Your task to perform on an android device: Open eBay Image 0: 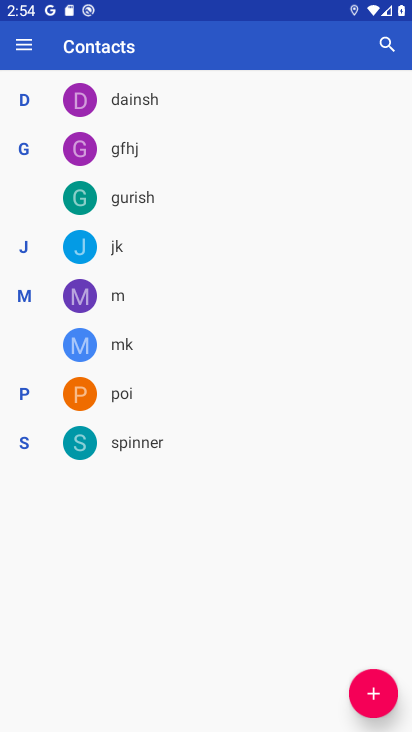
Step 0: drag from (214, 726) to (146, 238)
Your task to perform on an android device: Open eBay Image 1: 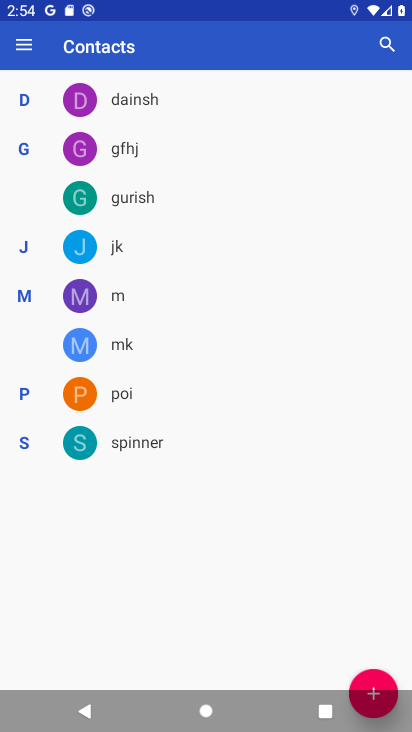
Step 1: press back button
Your task to perform on an android device: Open eBay Image 2: 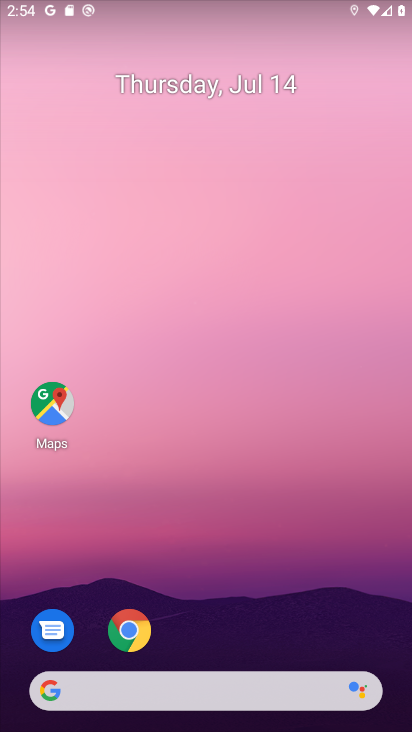
Step 2: drag from (267, 614) to (240, 174)
Your task to perform on an android device: Open eBay Image 3: 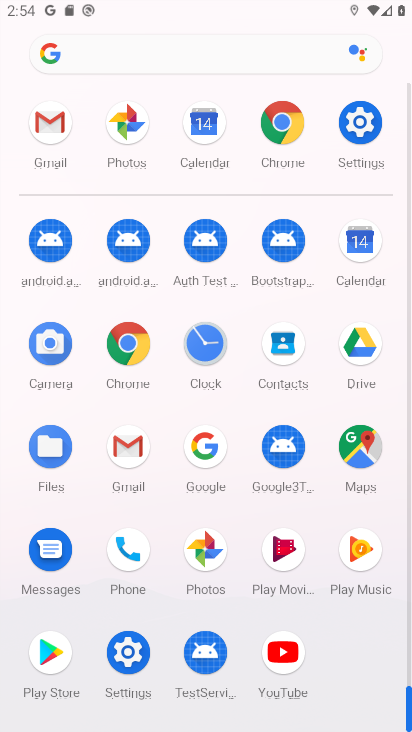
Step 3: click (292, 133)
Your task to perform on an android device: Open eBay Image 4: 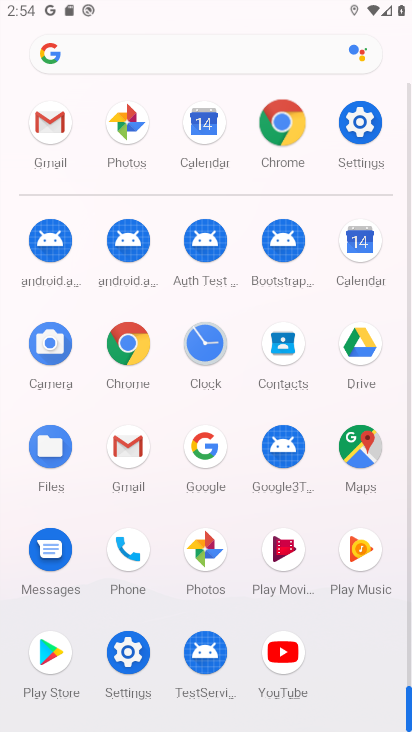
Step 4: click (289, 131)
Your task to perform on an android device: Open eBay Image 5: 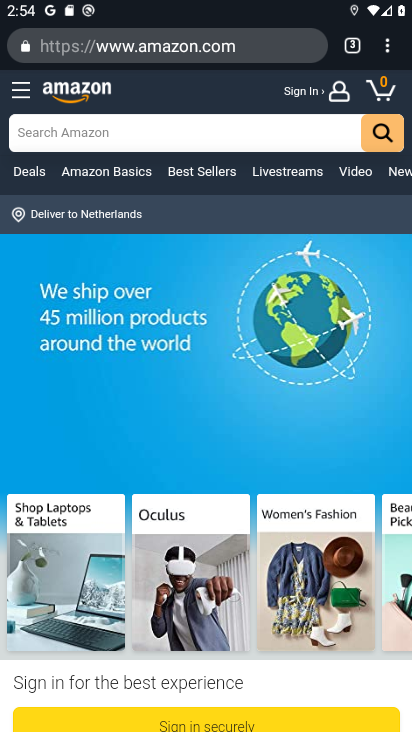
Step 5: drag from (388, 38) to (198, 88)
Your task to perform on an android device: Open eBay Image 6: 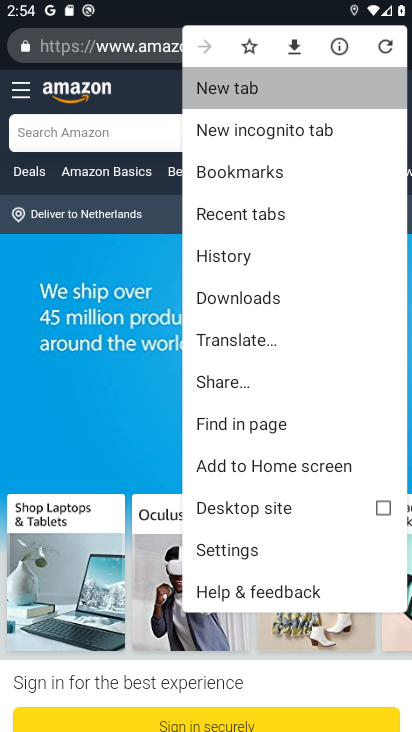
Step 6: click (197, 88)
Your task to perform on an android device: Open eBay Image 7: 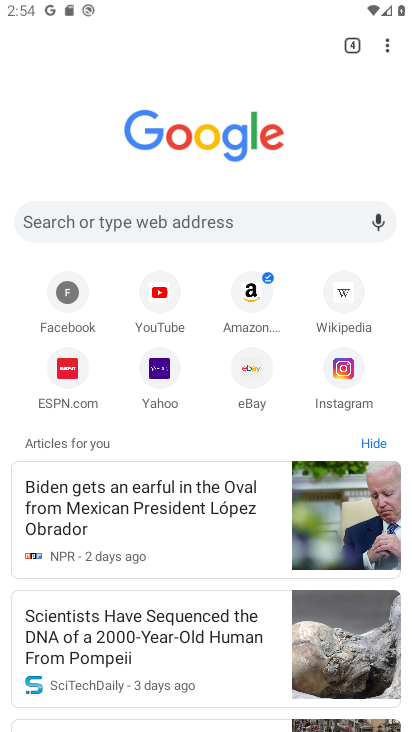
Step 7: click (249, 362)
Your task to perform on an android device: Open eBay Image 8: 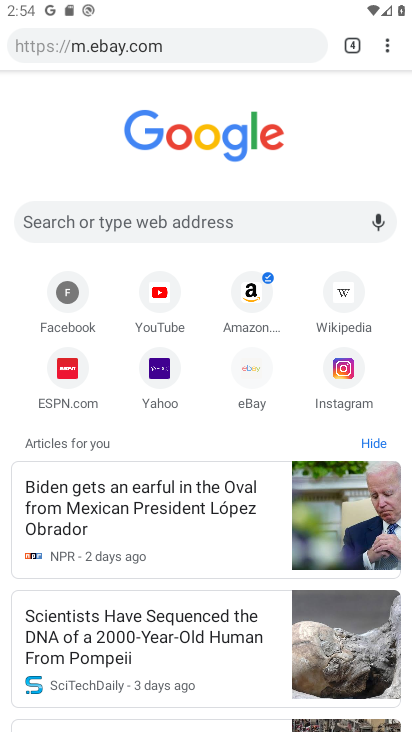
Step 8: click (253, 366)
Your task to perform on an android device: Open eBay Image 9: 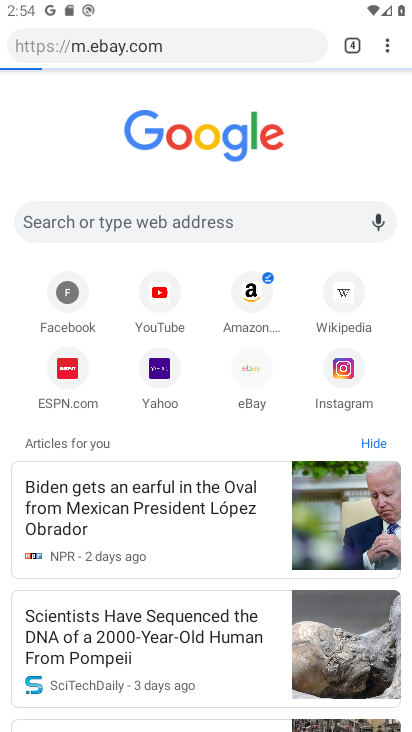
Step 9: click (253, 366)
Your task to perform on an android device: Open eBay Image 10: 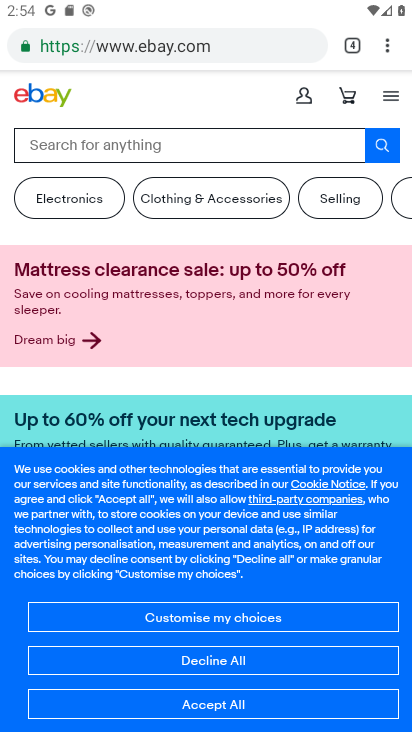
Step 10: task complete